Your task to perform on an android device: What is the recent news? Image 0: 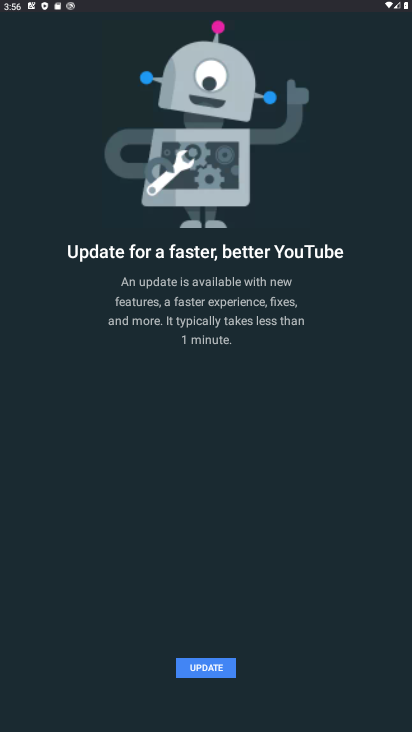
Step 0: press home button
Your task to perform on an android device: What is the recent news? Image 1: 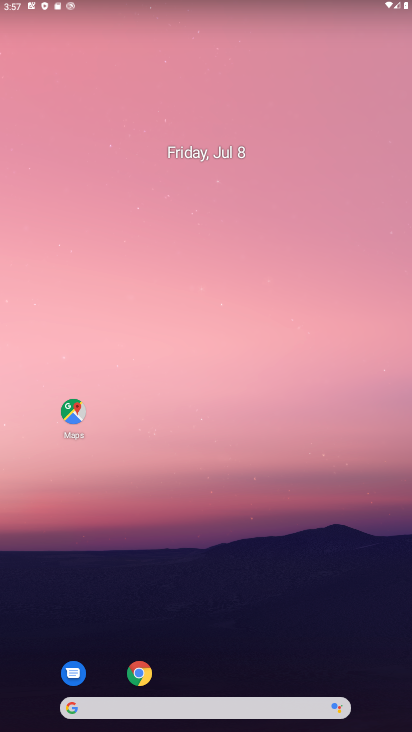
Step 1: click (184, 711)
Your task to perform on an android device: What is the recent news? Image 2: 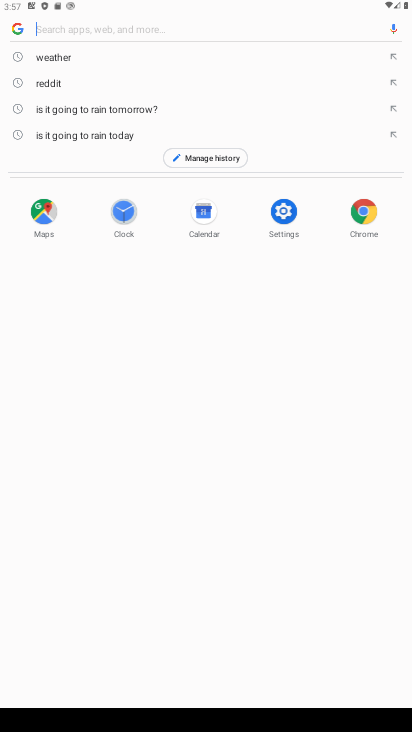
Step 2: click (87, 35)
Your task to perform on an android device: What is the recent news? Image 3: 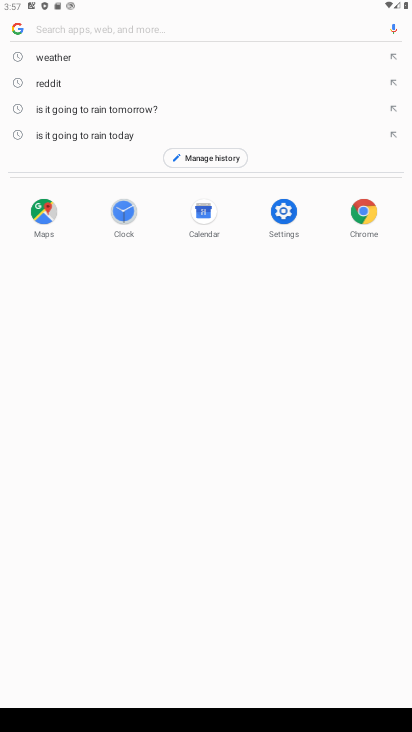
Step 3: type "recent news"
Your task to perform on an android device: What is the recent news? Image 4: 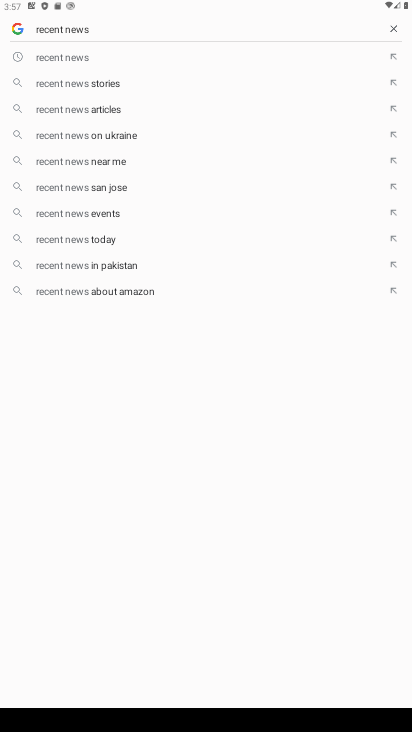
Step 4: click (60, 56)
Your task to perform on an android device: What is the recent news? Image 5: 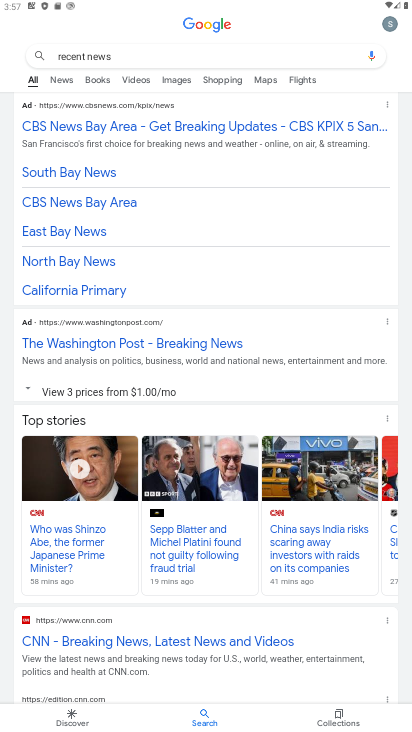
Step 5: click (168, 580)
Your task to perform on an android device: What is the recent news? Image 6: 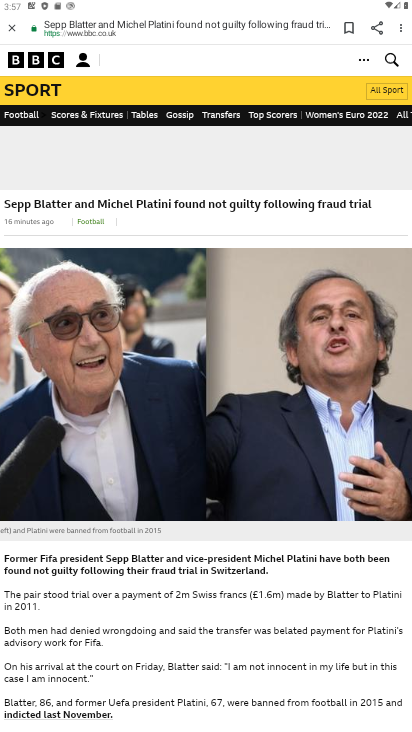
Step 6: task complete